Your task to perform on an android device: find photos in the google photos app Image 0: 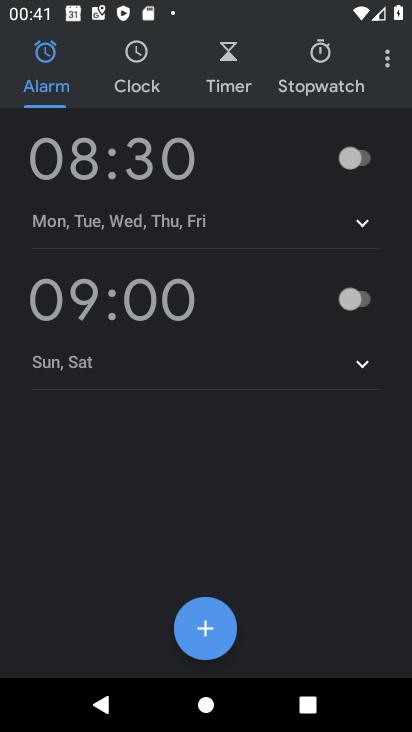
Step 0: press home button
Your task to perform on an android device: find photos in the google photos app Image 1: 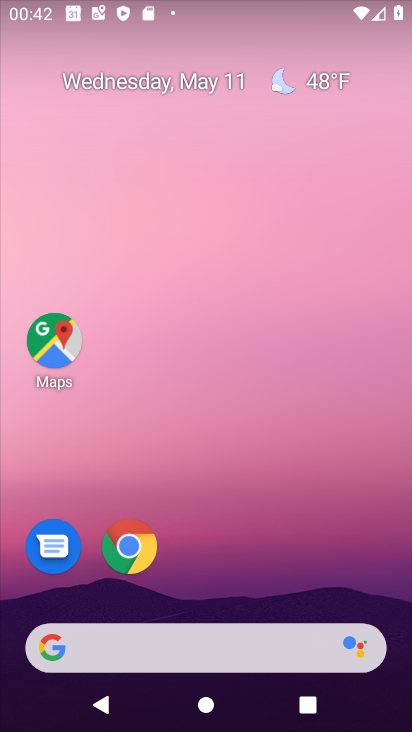
Step 1: drag from (205, 589) to (223, 211)
Your task to perform on an android device: find photos in the google photos app Image 2: 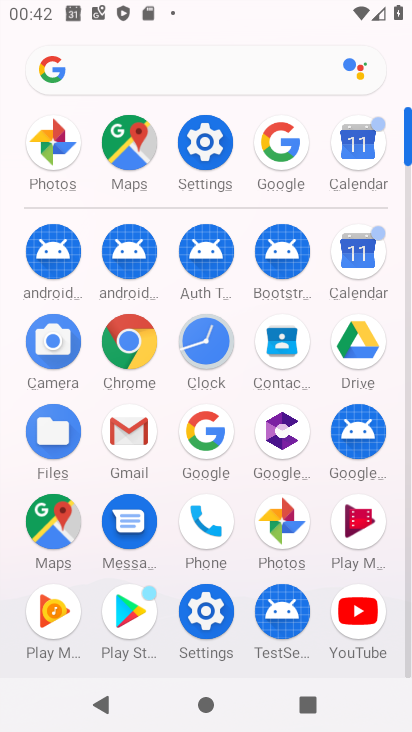
Step 2: click (272, 529)
Your task to perform on an android device: find photos in the google photos app Image 3: 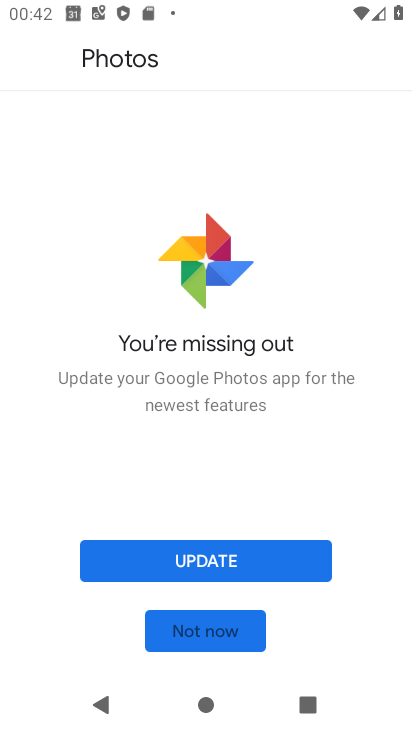
Step 3: click (193, 625)
Your task to perform on an android device: find photos in the google photos app Image 4: 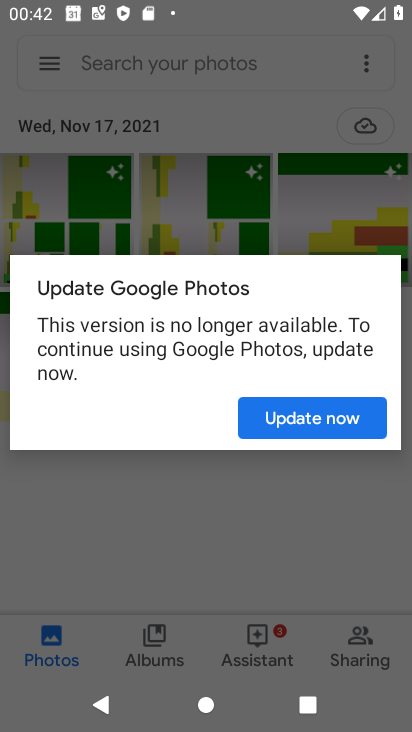
Step 4: click (286, 418)
Your task to perform on an android device: find photos in the google photos app Image 5: 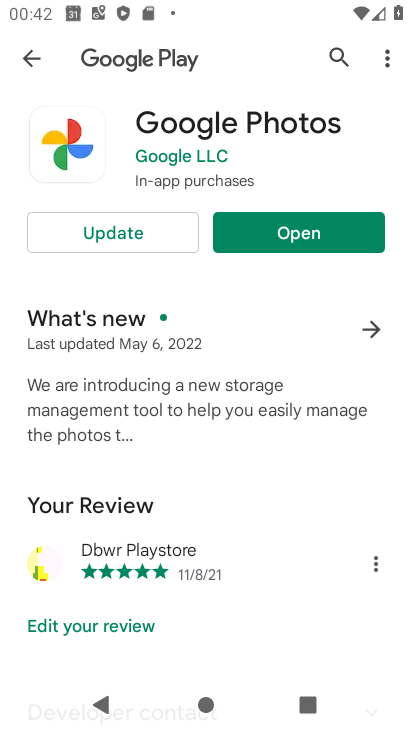
Step 5: click (247, 236)
Your task to perform on an android device: find photos in the google photos app Image 6: 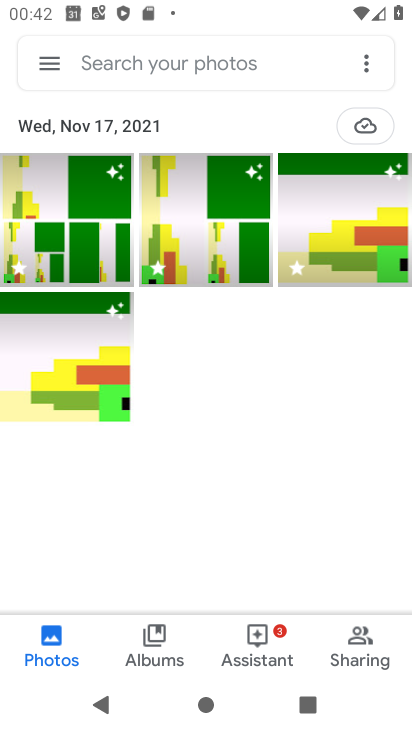
Step 6: click (98, 54)
Your task to perform on an android device: find photos in the google photos app Image 7: 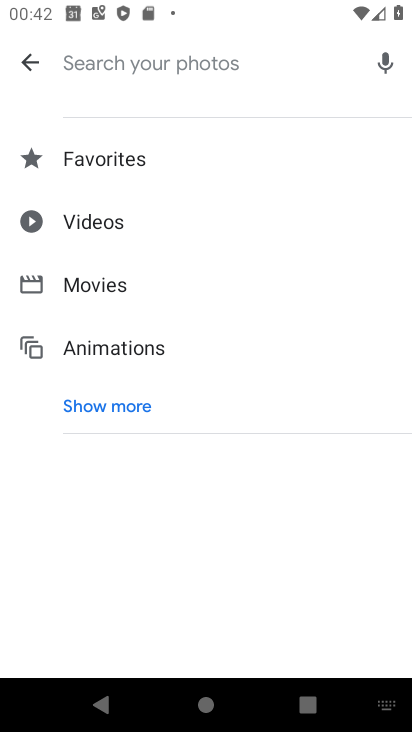
Step 7: type "aaa"
Your task to perform on an android device: find photos in the google photos app Image 8: 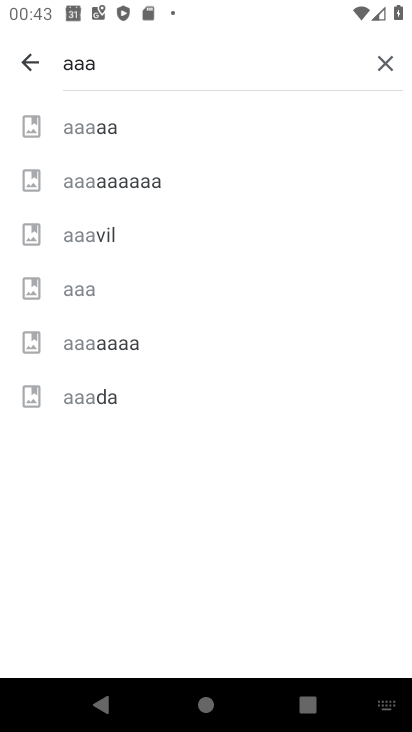
Step 8: click (106, 230)
Your task to perform on an android device: find photos in the google photos app Image 9: 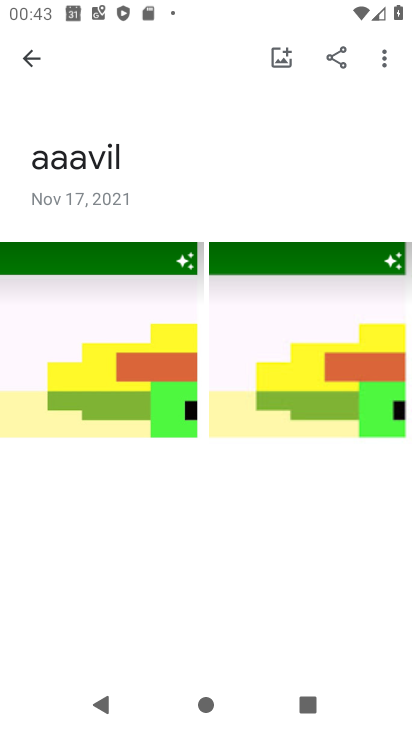
Step 9: task complete